Your task to perform on an android device: Do I have any events tomorrow? Image 0: 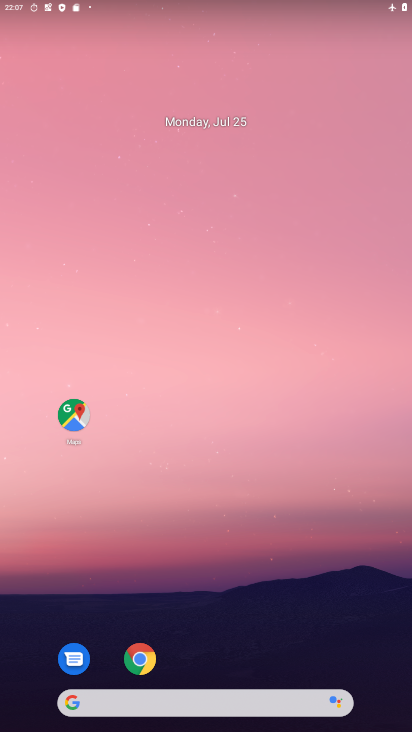
Step 0: drag from (211, 655) to (211, 288)
Your task to perform on an android device: Do I have any events tomorrow? Image 1: 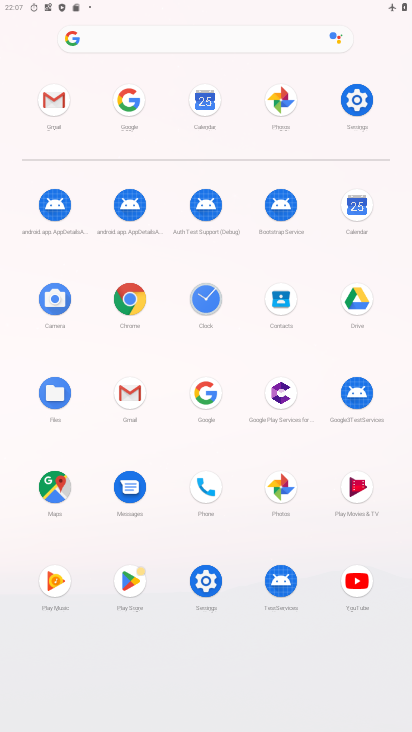
Step 1: click (360, 212)
Your task to perform on an android device: Do I have any events tomorrow? Image 2: 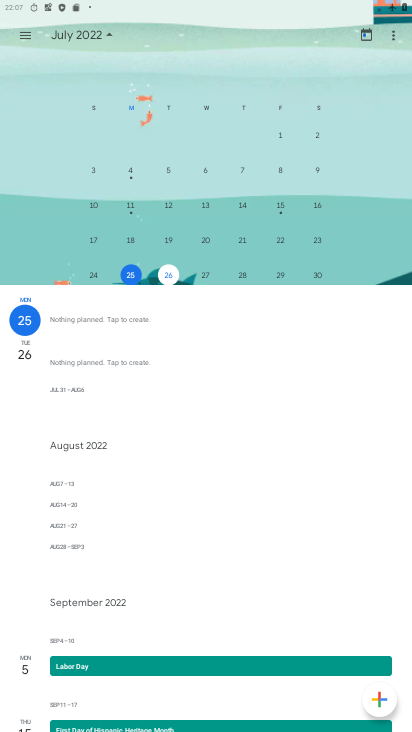
Step 2: task complete